Your task to perform on an android device: open app "YouTube Kids" (install if not already installed) and enter user name: "atmospheric@gmail.com" and password: "raze" Image 0: 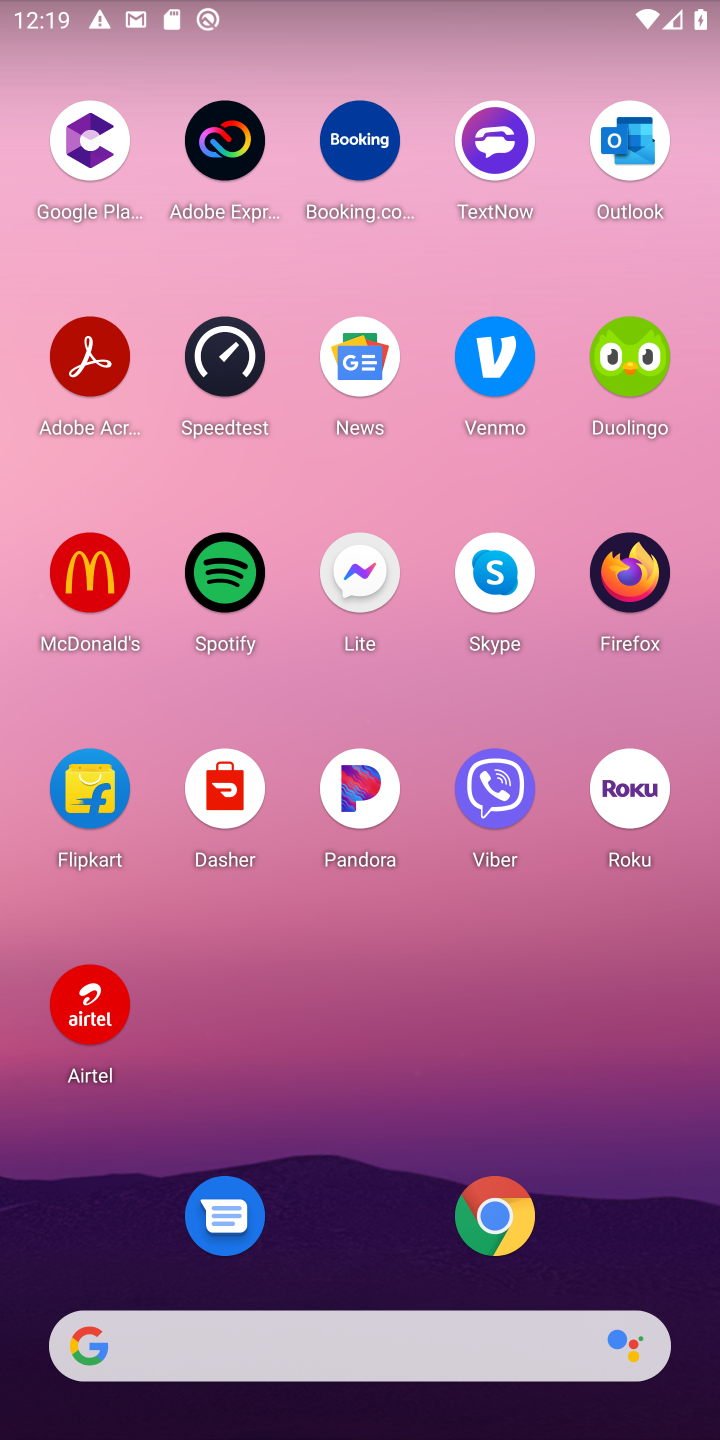
Step 0: press home button
Your task to perform on an android device: open app "YouTube Kids" (install if not already installed) and enter user name: "atmospheric@gmail.com" and password: "raze" Image 1: 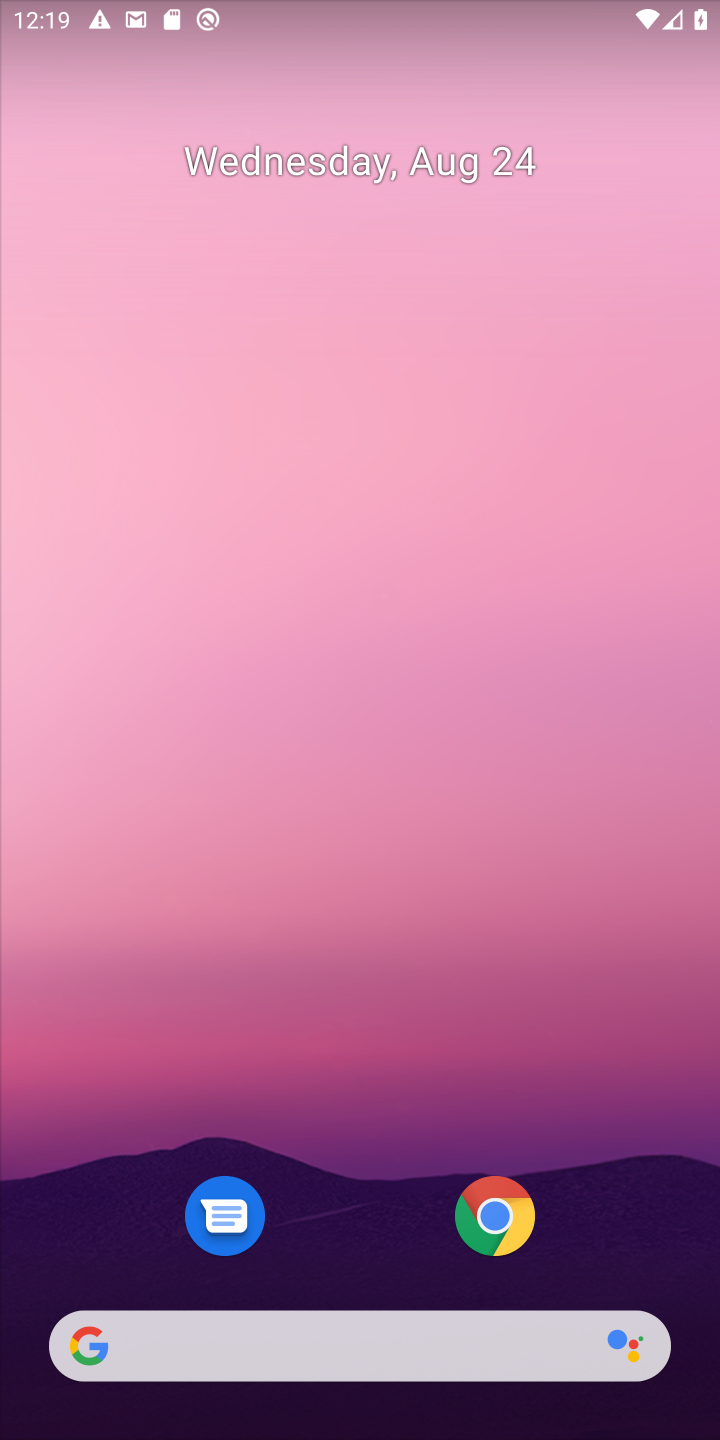
Step 1: drag from (290, 1158) to (317, 8)
Your task to perform on an android device: open app "YouTube Kids" (install if not already installed) and enter user name: "atmospheric@gmail.com" and password: "raze" Image 2: 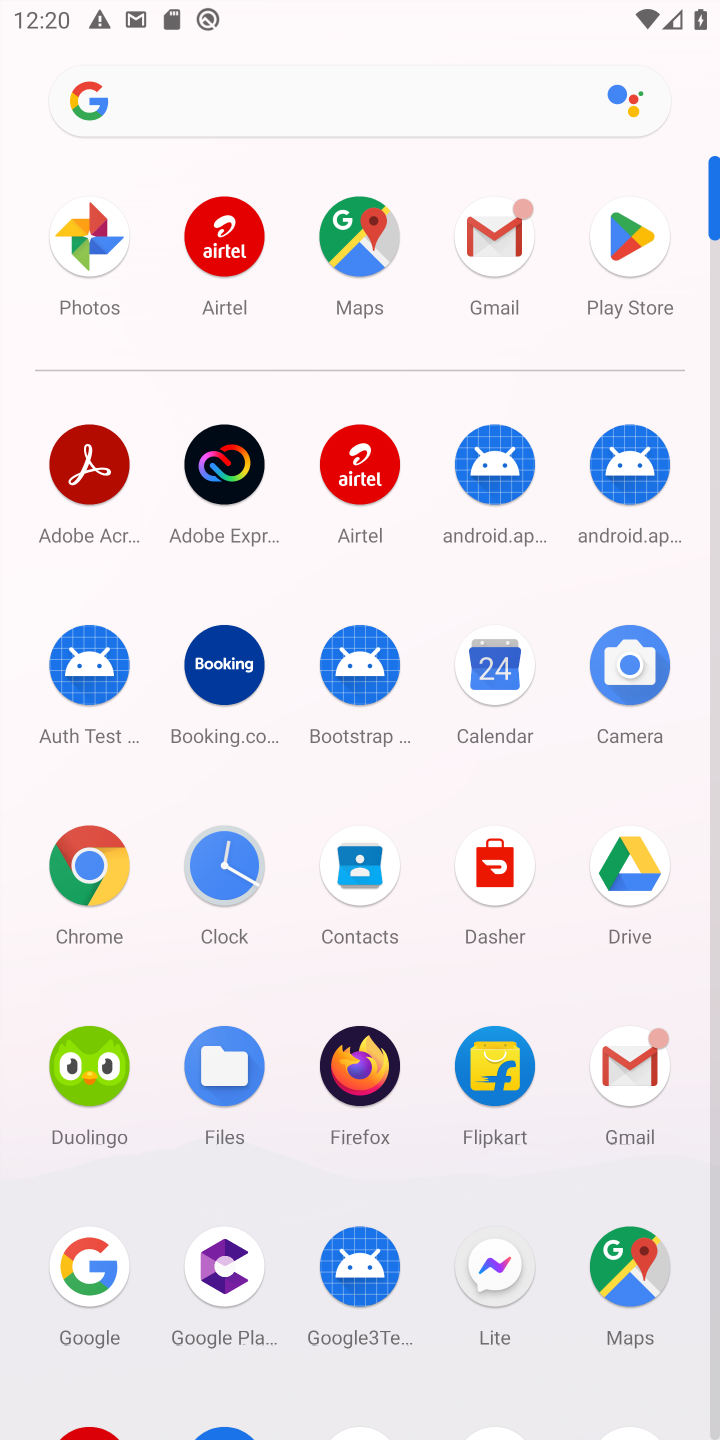
Step 2: click (629, 235)
Your task to perform on an android device: open app "YouTube Kids" (install if not already installed) and enter user name: "atmospheric@gmail.com" and password: "raze" Image 3: 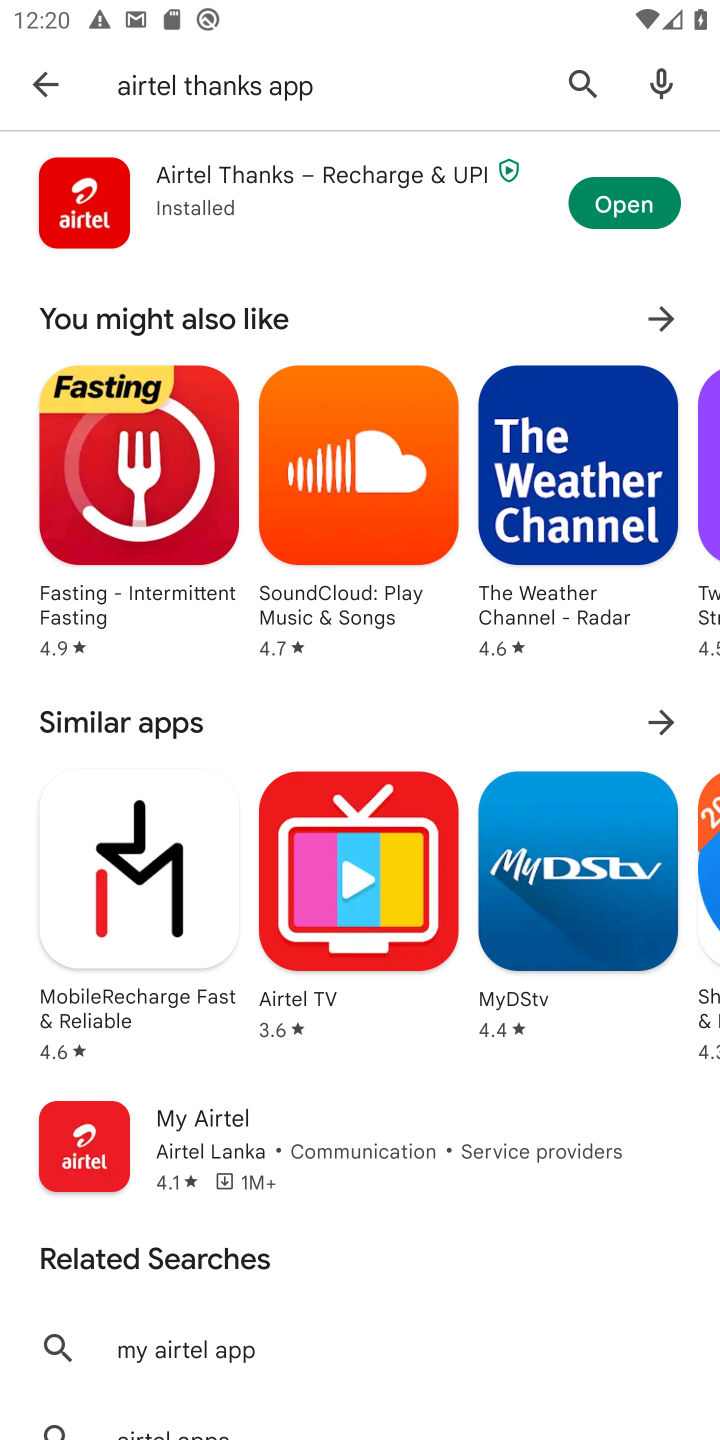
Step 3: press back button
Your task to perform on an android device: open app "YouTube Kids" (install if not already installed) and enter user name: "atmospheric@gmail.com" and password: "raze" Image 4: 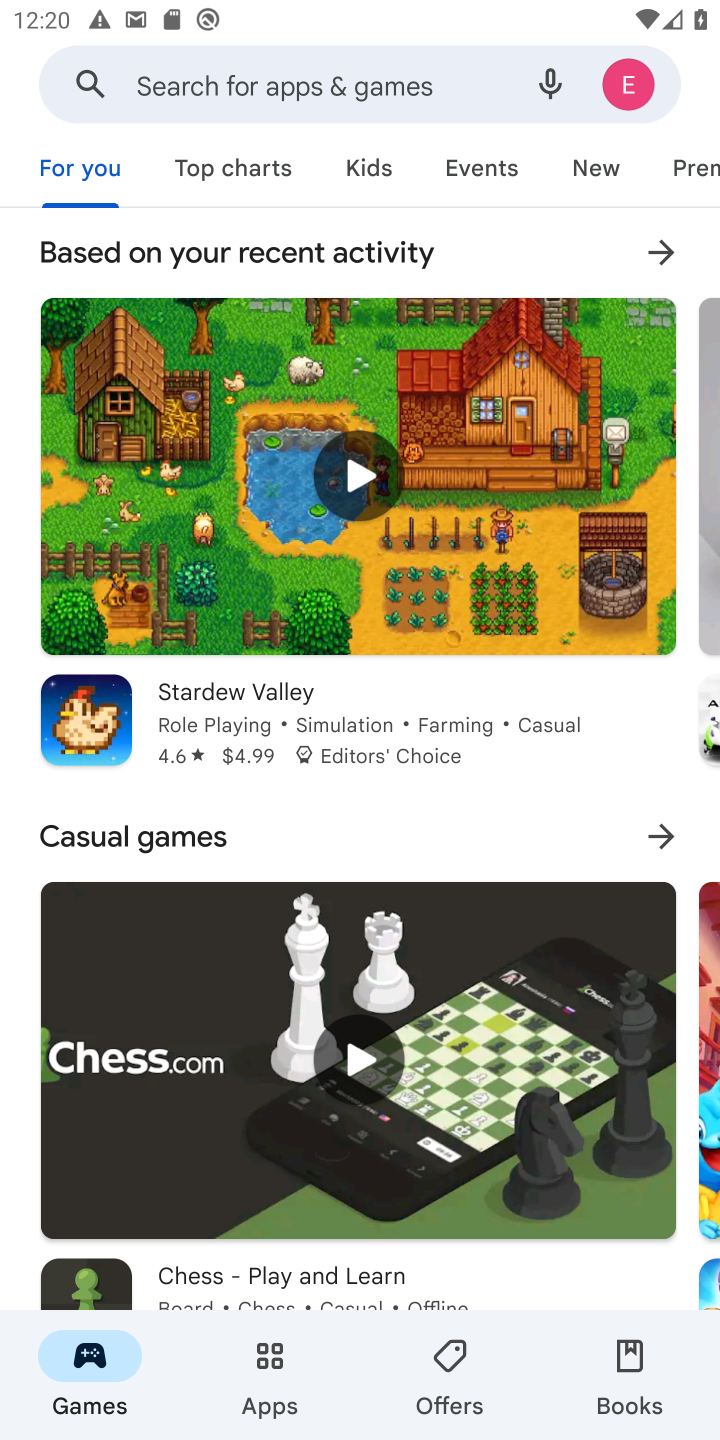
Step 4: click (352, 92)
Your task to perform on an android device: open app "YouTube Kids" (install if not already installed) and enter user name: "atmospheric@gmail.com" and password: "raze" Image 5: 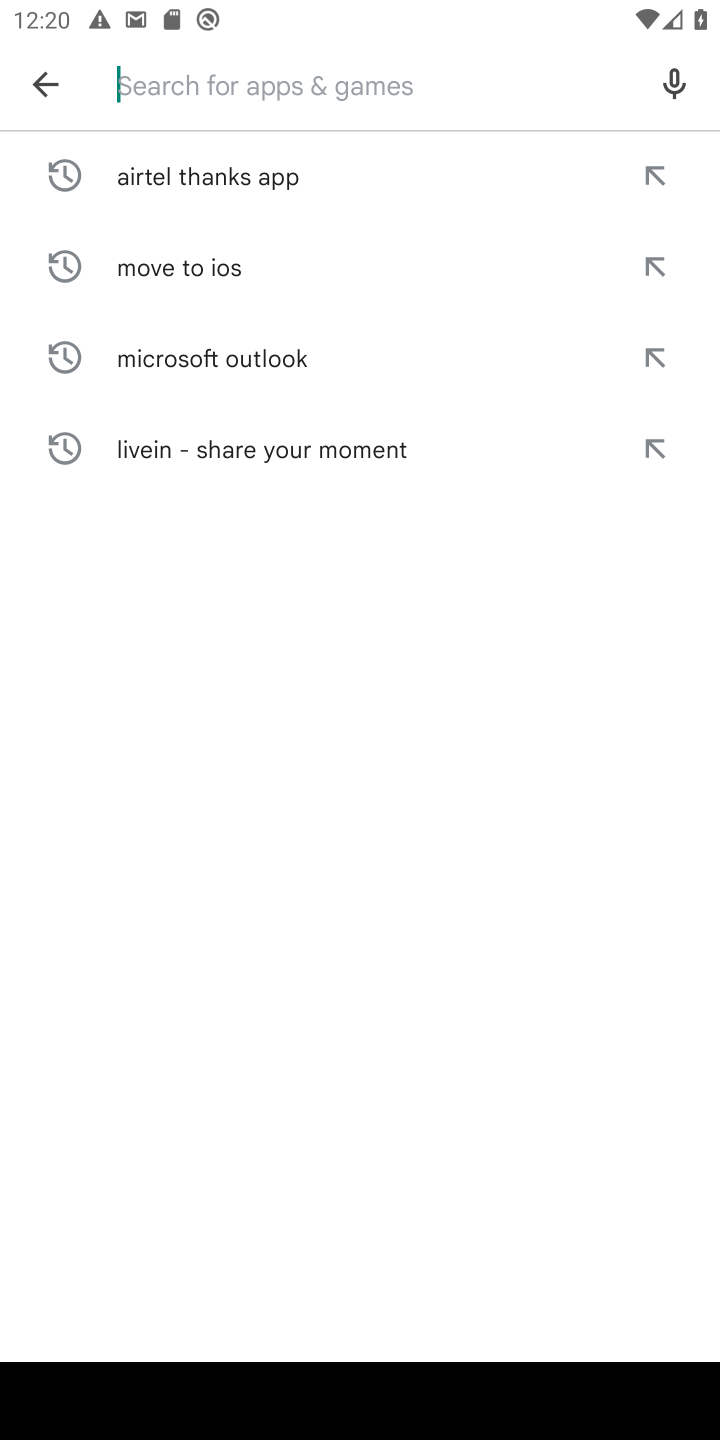
Step 5: type "YouTube Kids"
Your task to perform on an android device: open app "YouTube Kids" (install if not already installed) and enter user name: "atmospheric@gmail.com" and password: "raze" Image 6: 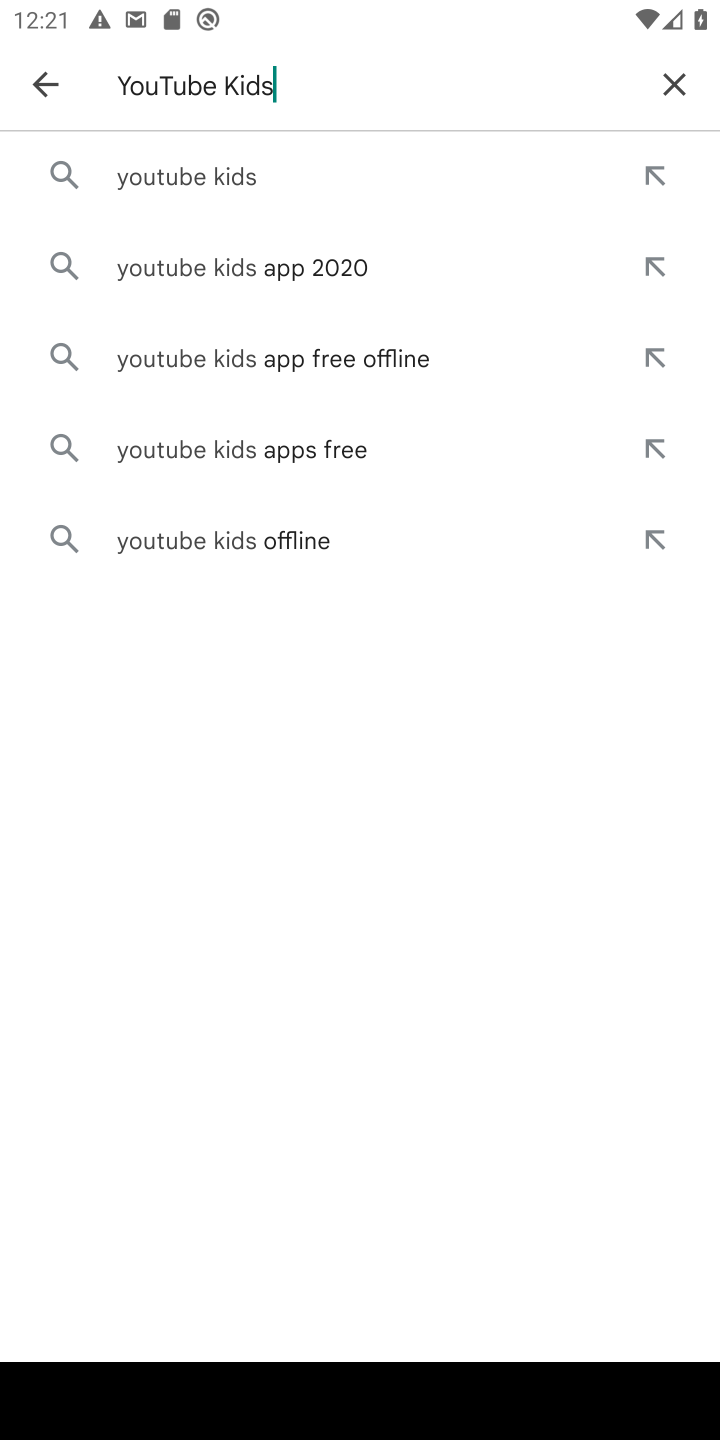
Step 6: click (203, 180)
Your task to perform on an android device: open app "YouTube Kids" (install if not already installed) and enter user name: "atmospheric@gmail.com" and password: "raze" Image 7: 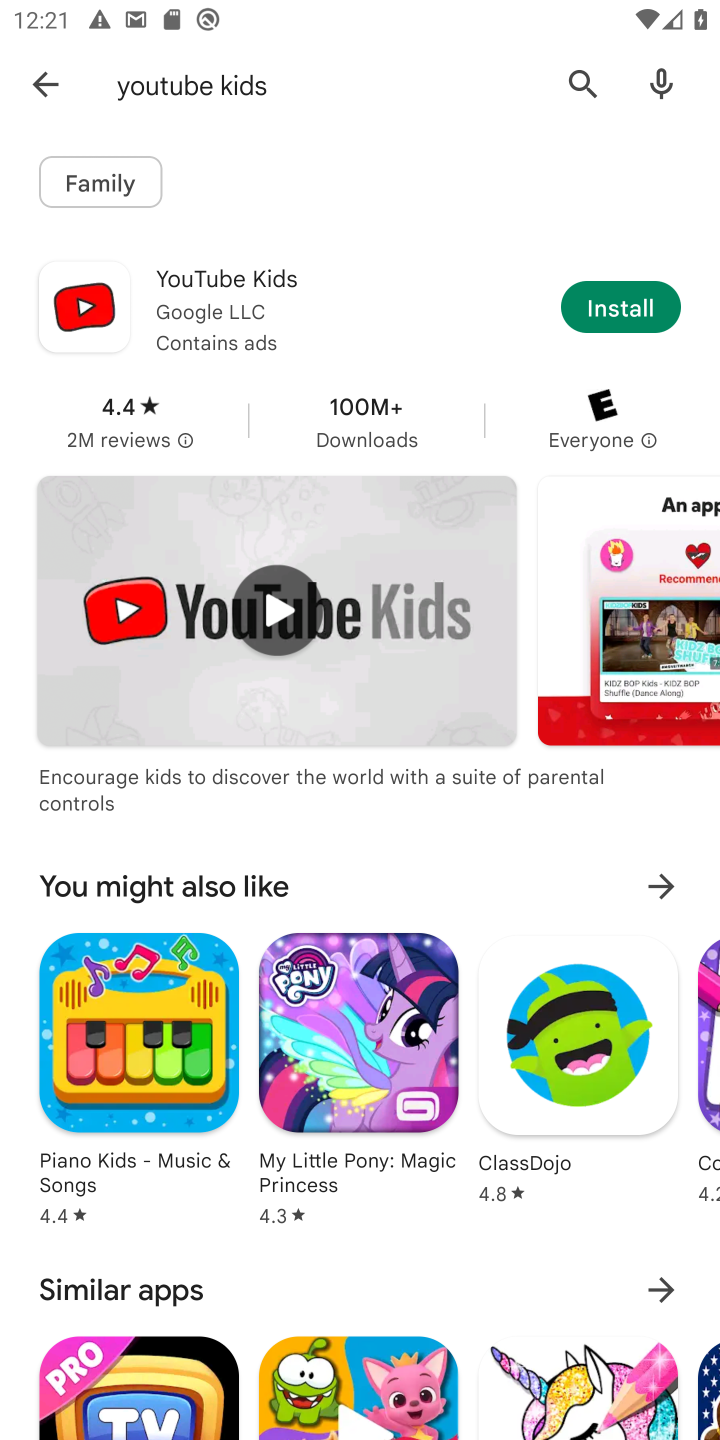
Step 7: click (612, 313)
Your task to perform on an android device: open app "YouTube Kids" (install if not already installed) and enter user name: "atmospheric@gmail.com" and password: "raze" Image 8: 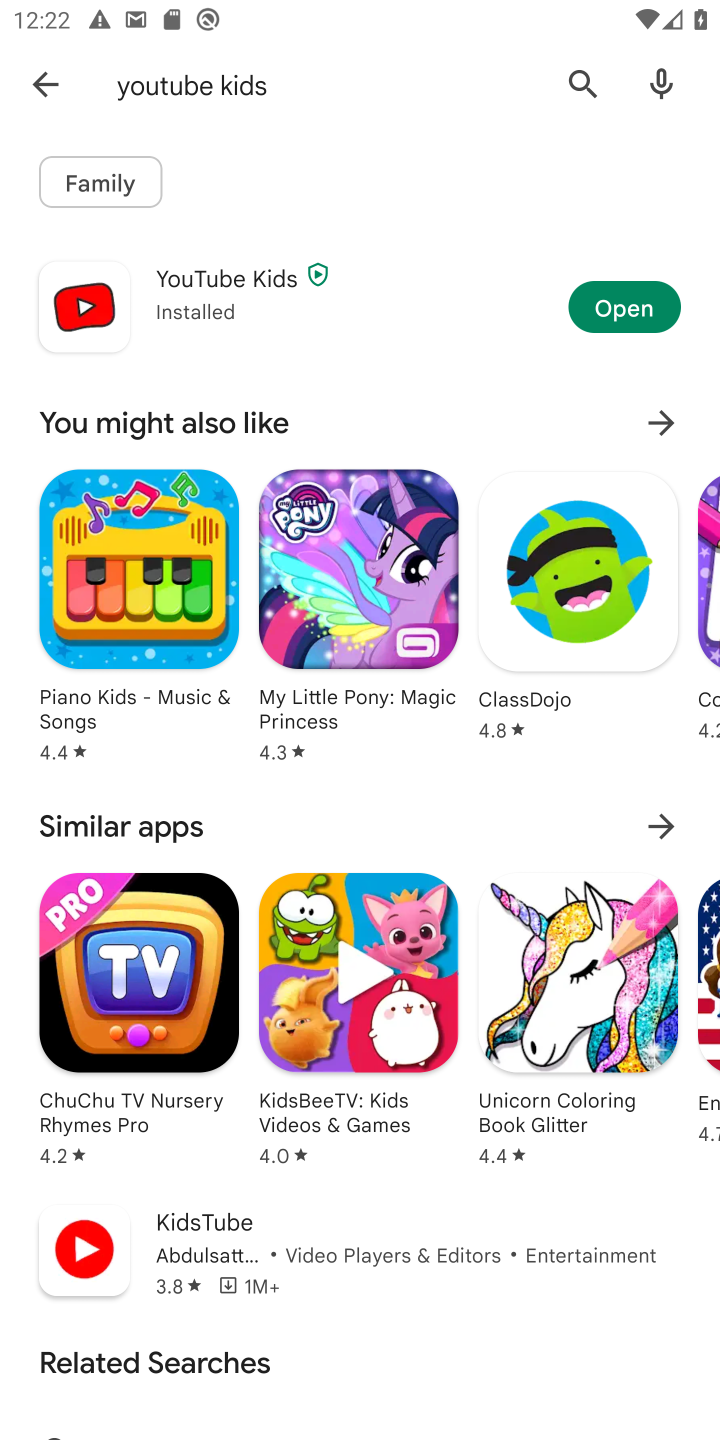
Step 8: click (629, 307)
Your task to perform on an android device: open app "YouTube Kids" (install if not already installed) and enter user name: "atmospheric@gmail.com" and password: "raze" Image 9: 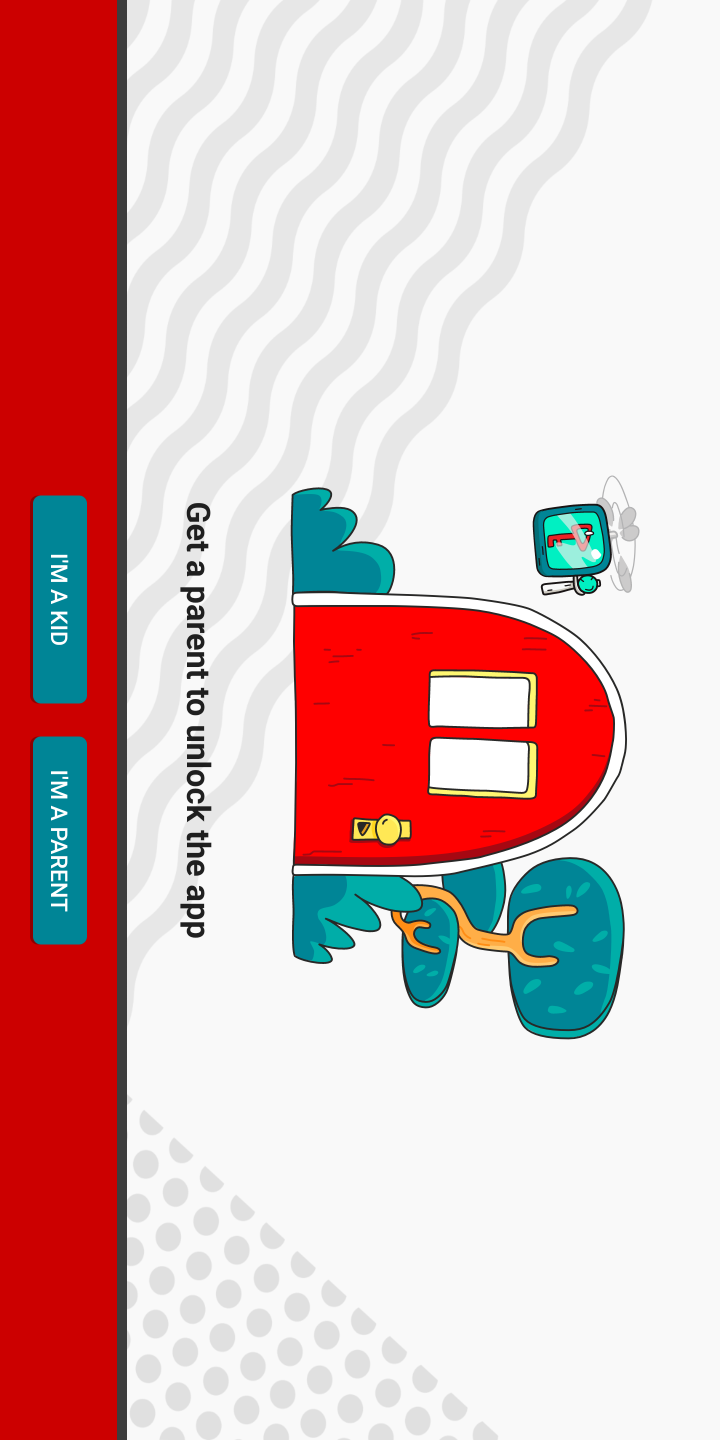
Step 9: click (57, 840)
Your task to perform on an android device: open app "YouTube Kids" (install if not already installed) and enter user name: "atmospheric@gmail.com" and password: "raze" Image 10: 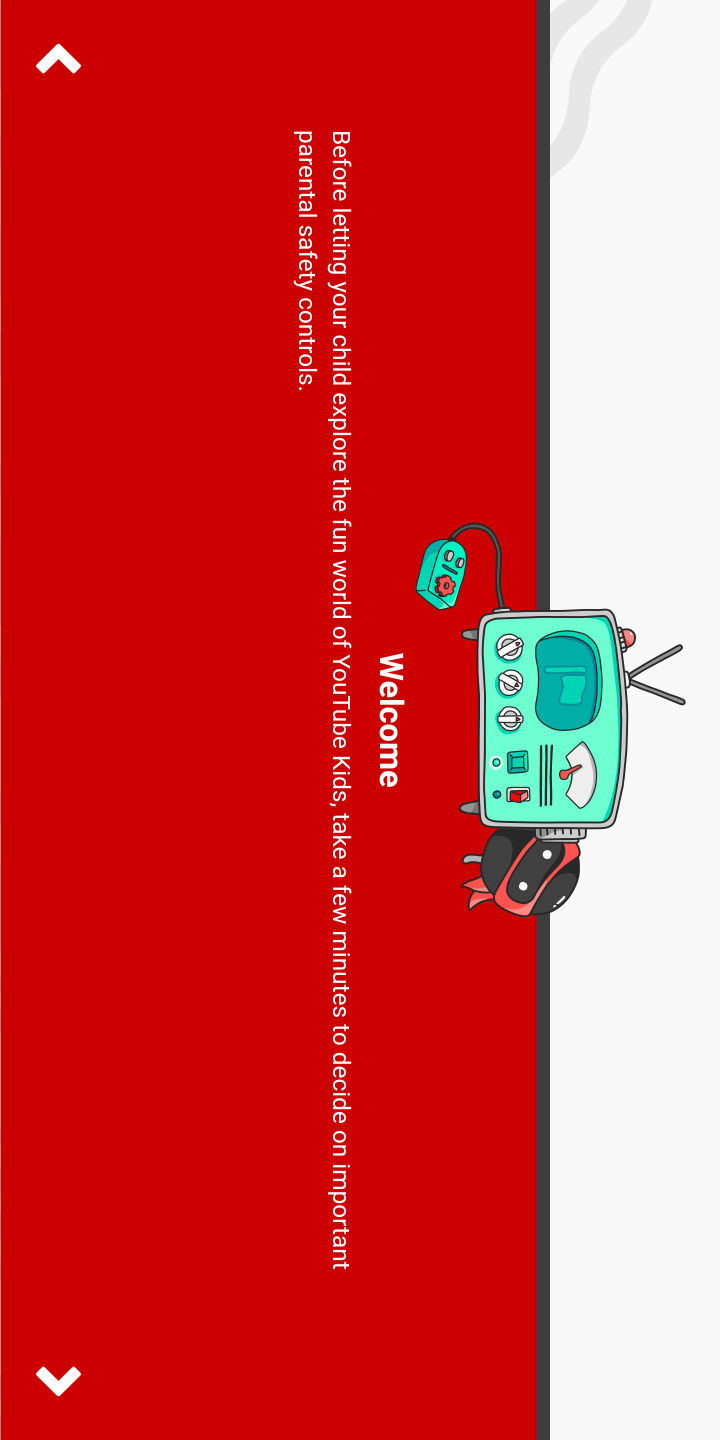
Step 10: click (65, 1376)
Your task to perform on an android device: open app "YouTube Kids" (install if not already installed) and enter user name: "atmospheric@gmail.com" and password: "raze" Image 11: 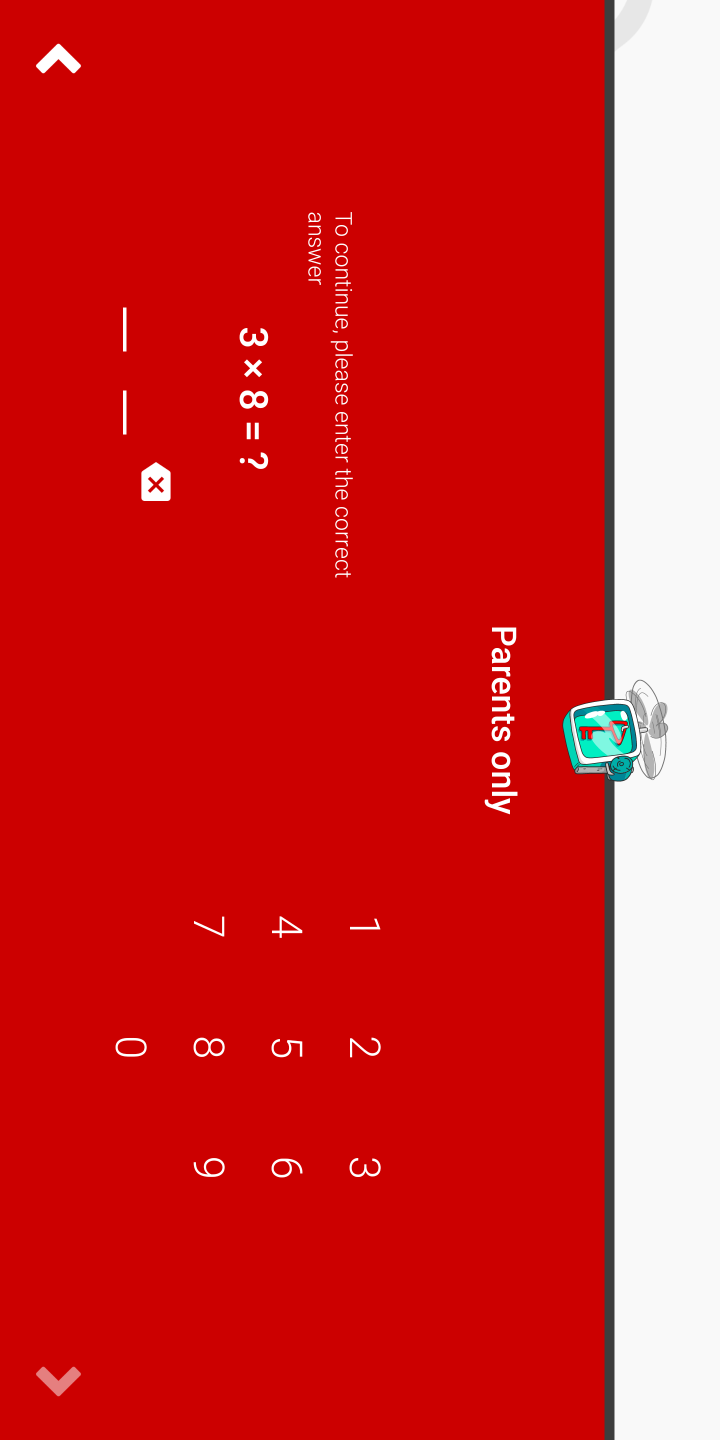
Step 11: click (371, 1061)
Your task to perform on an android device: open app "YouTube Kids" (install if not already installed) and enter user name: "atmospheric@gmail.com" and password: "raze" Image 12: 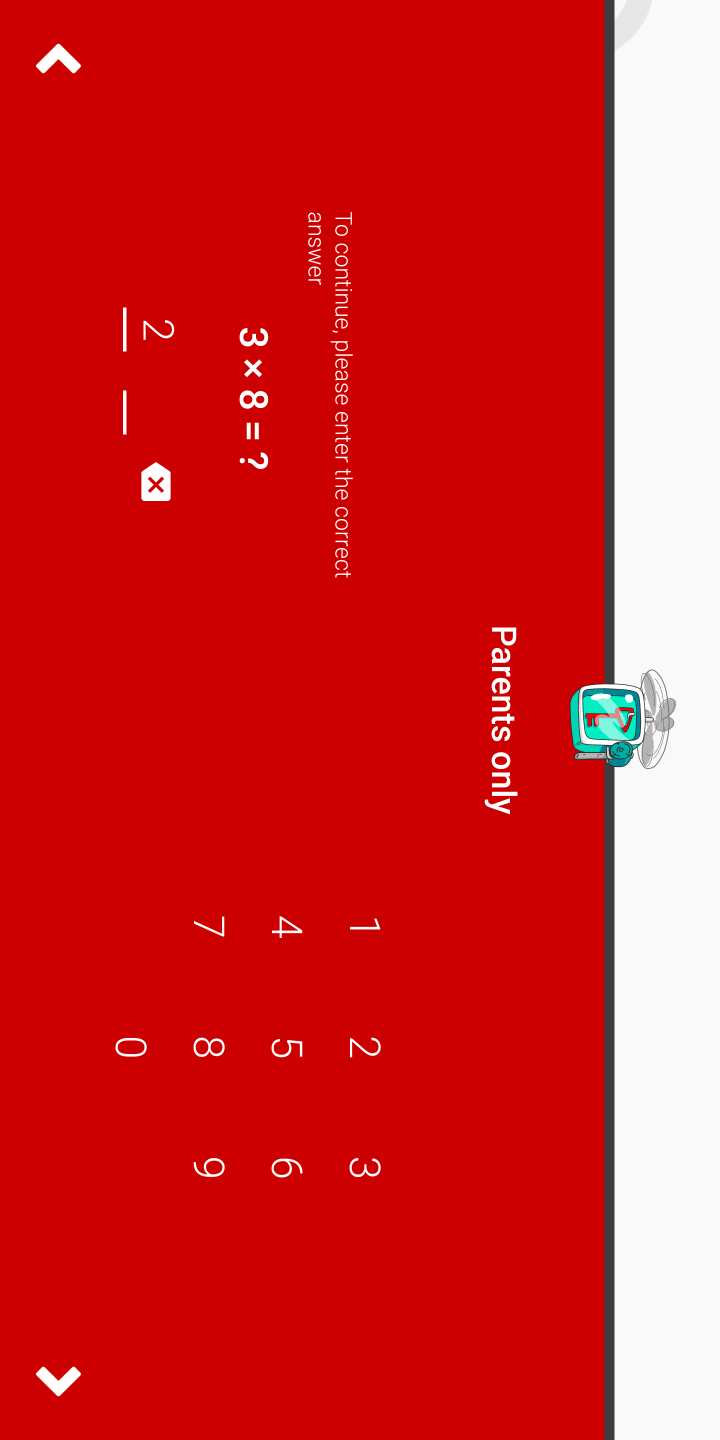
Step 12: click (285, 933)
Your task to perform on an android device: open app "YouTube Kids" (install if not already installed) and enter user name: "atmospheric@gmail.com" and password: "raze" Image 13: 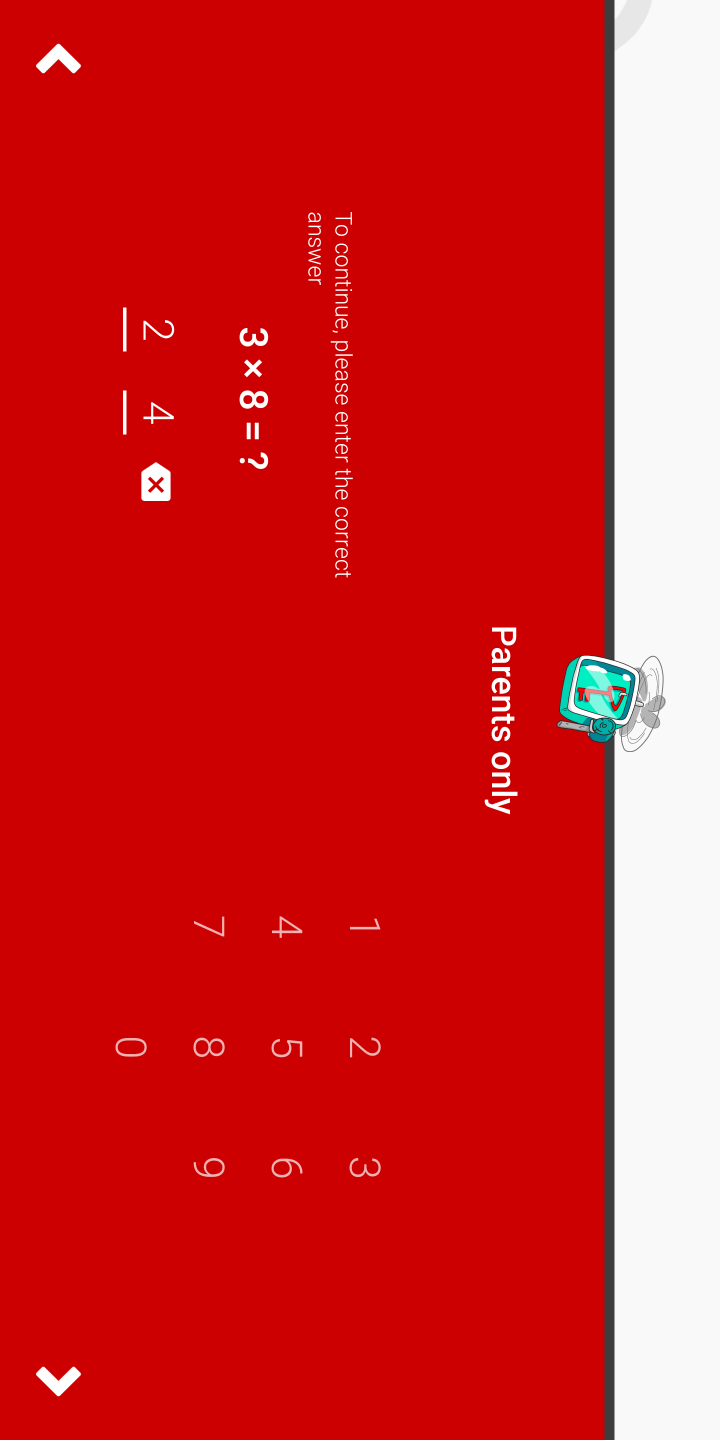
Step 13: click (46, 1390)
Your task to perform on an android device: open app "YouTube Kids" (install if not already installed) and enter user name: "atmospheric@gmail.com" and password: "raze" Image 14: 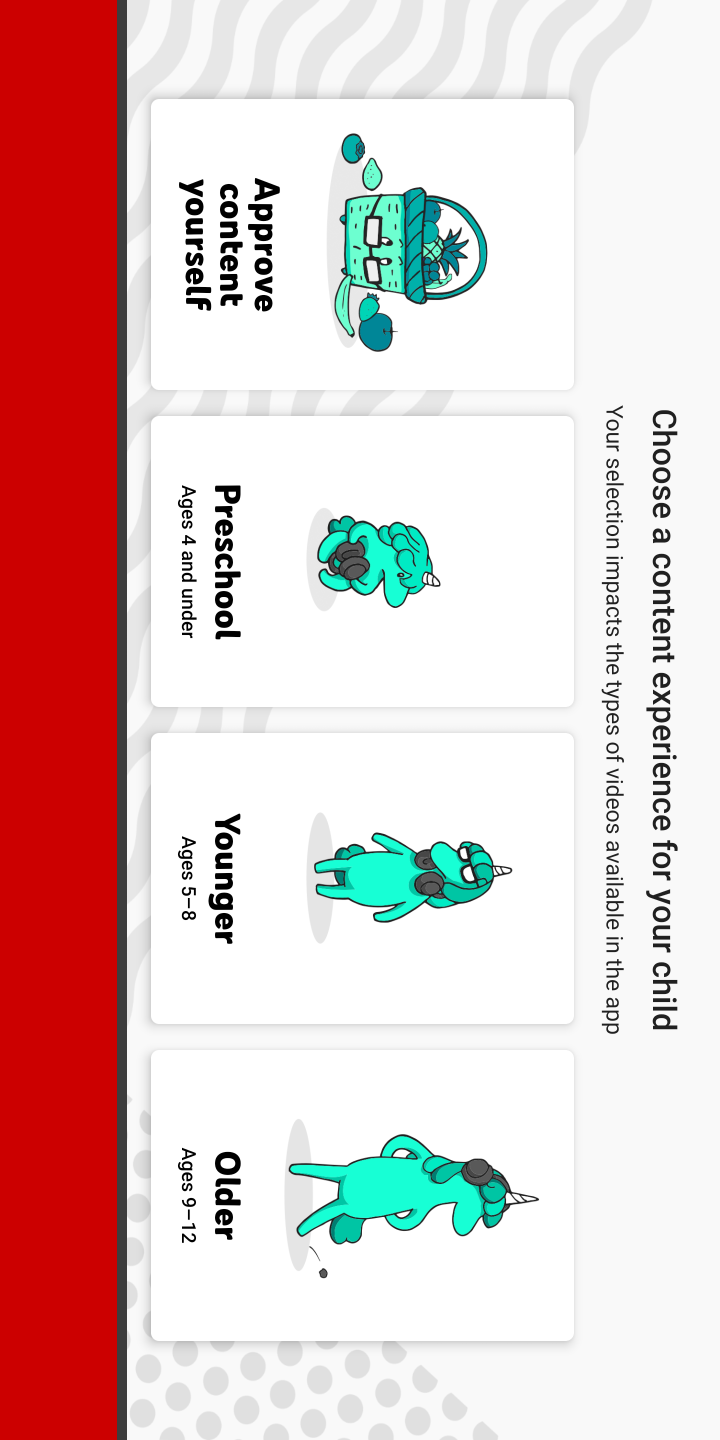
Step 14: click (410, 368)
Your task to perform on an android device: open app "YouTube Kids" (install if not already installed) and enter user name: "atmospheric@gmail.com" and password: "raze" Image 15: 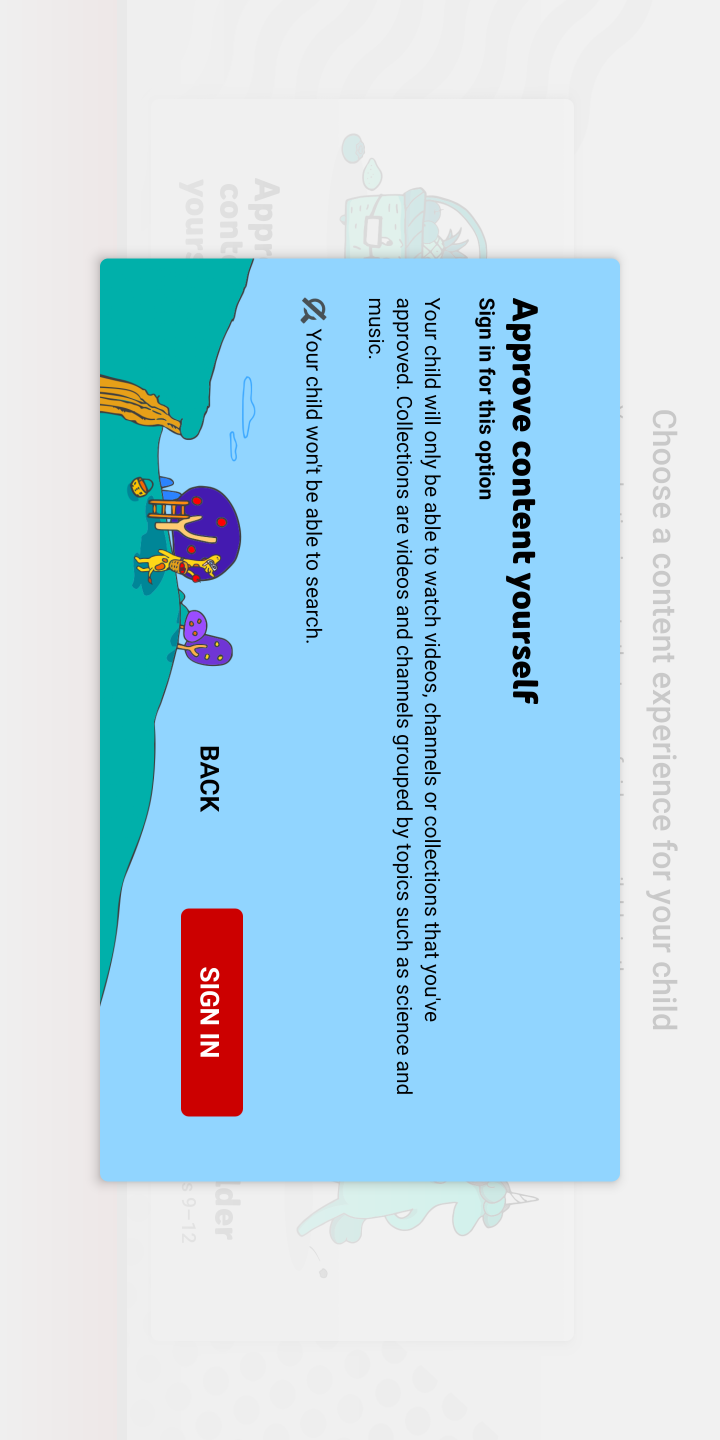
Step 15: click (217, 979)
Your task to perform on an android device: open app "YouTube Kids" (install if not already installed) and enter user name: "atmospheric@gmail.com" and password: "raze" Image 16: 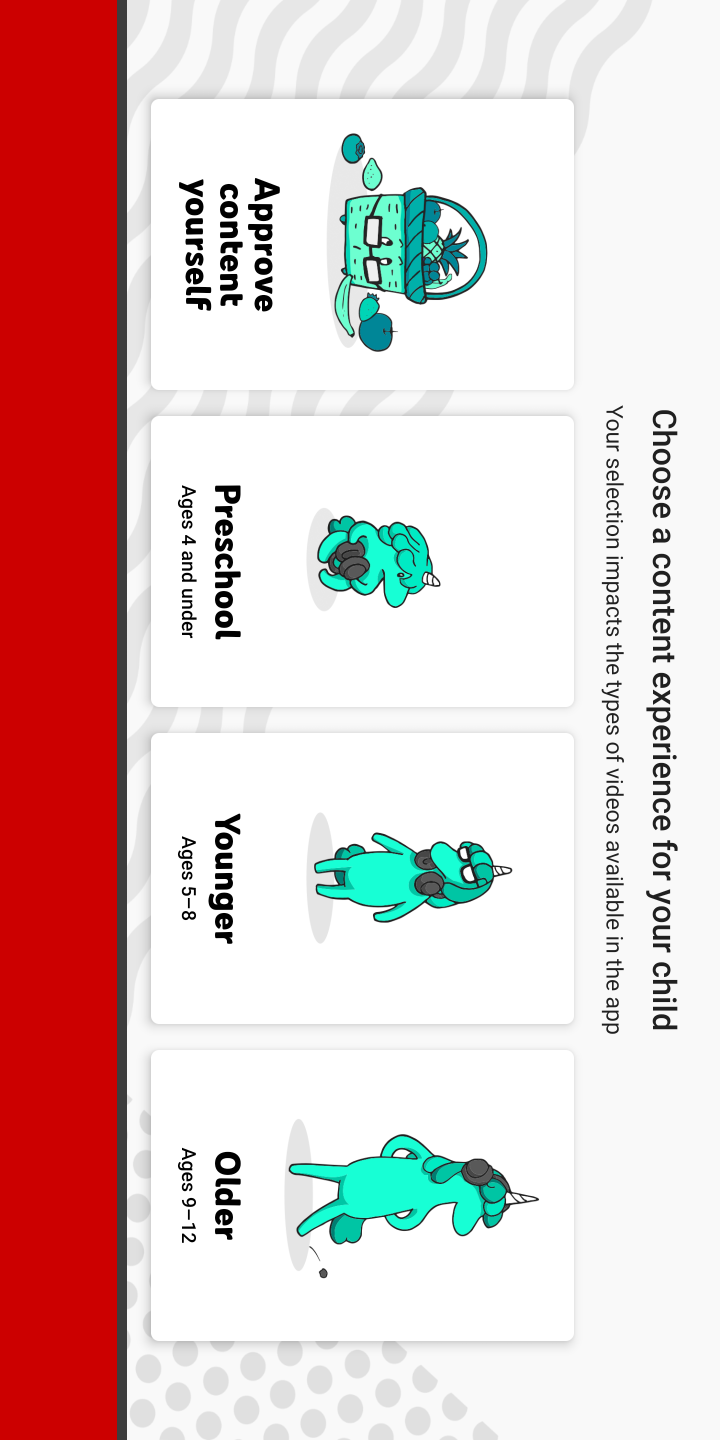
Step 16: click (274, 208)
Your task to perform on an android device: open app "YouTube Kids" (install if not already installed) and enter user name: "atmospheric@gmail.com" and password: "raze" Image 17: 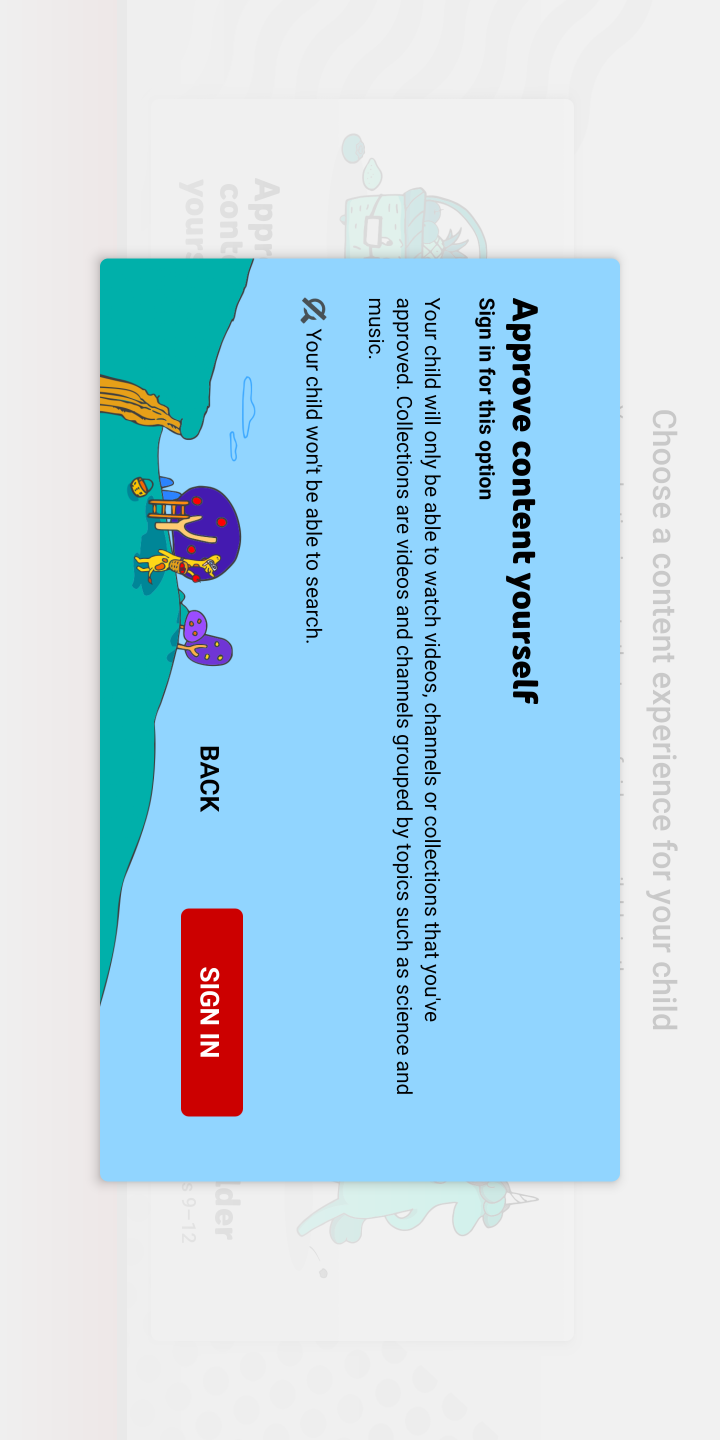
Step 17: click (202, 1002)
Your task to perform on an android device: open app "YouTube Kids" (install if not already installed) and enter user name: "atmospheric@gmail.com" and password: "raze" Image 18: 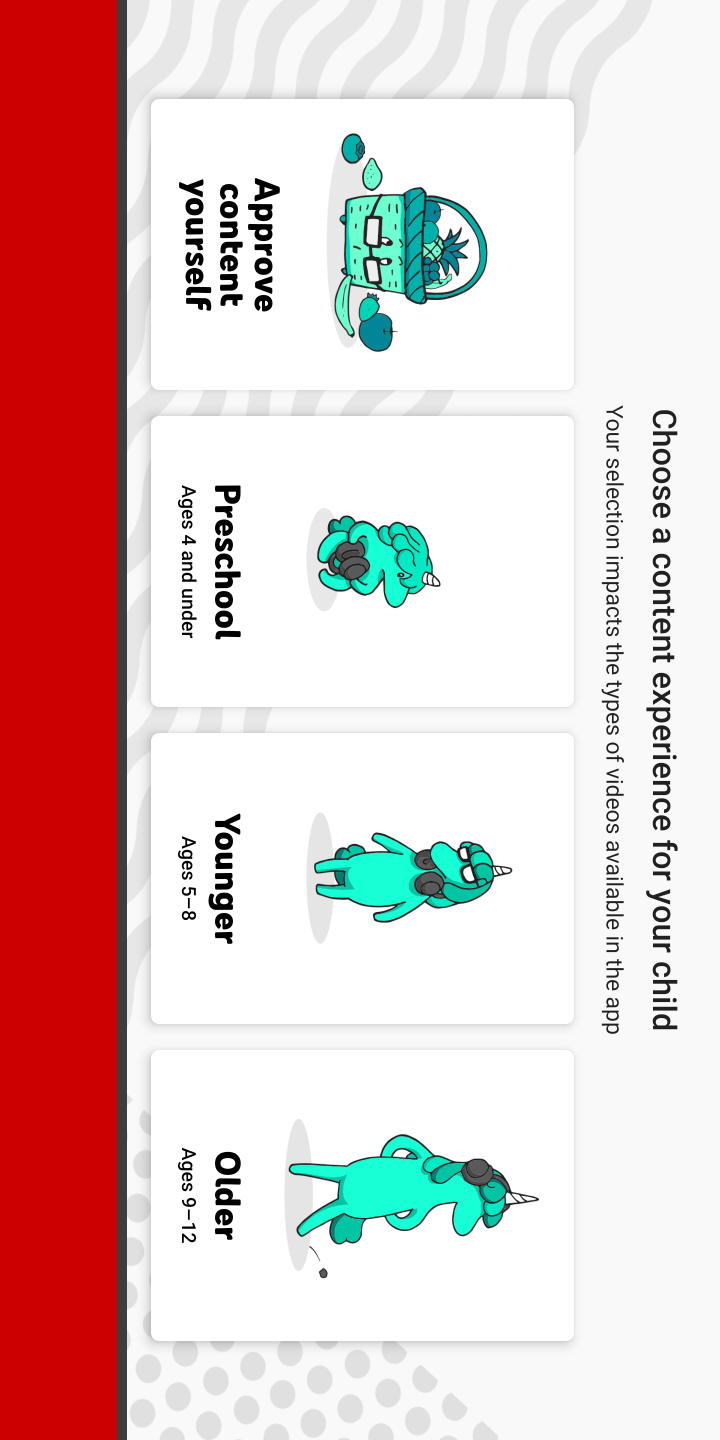
Step 18: click (309, 629)
Your task to perform on an android device: open app "YouTube Kids" (install if not already installed) and enter user name: "atmospheric@gmail.com" and password: "raze" Image 19: 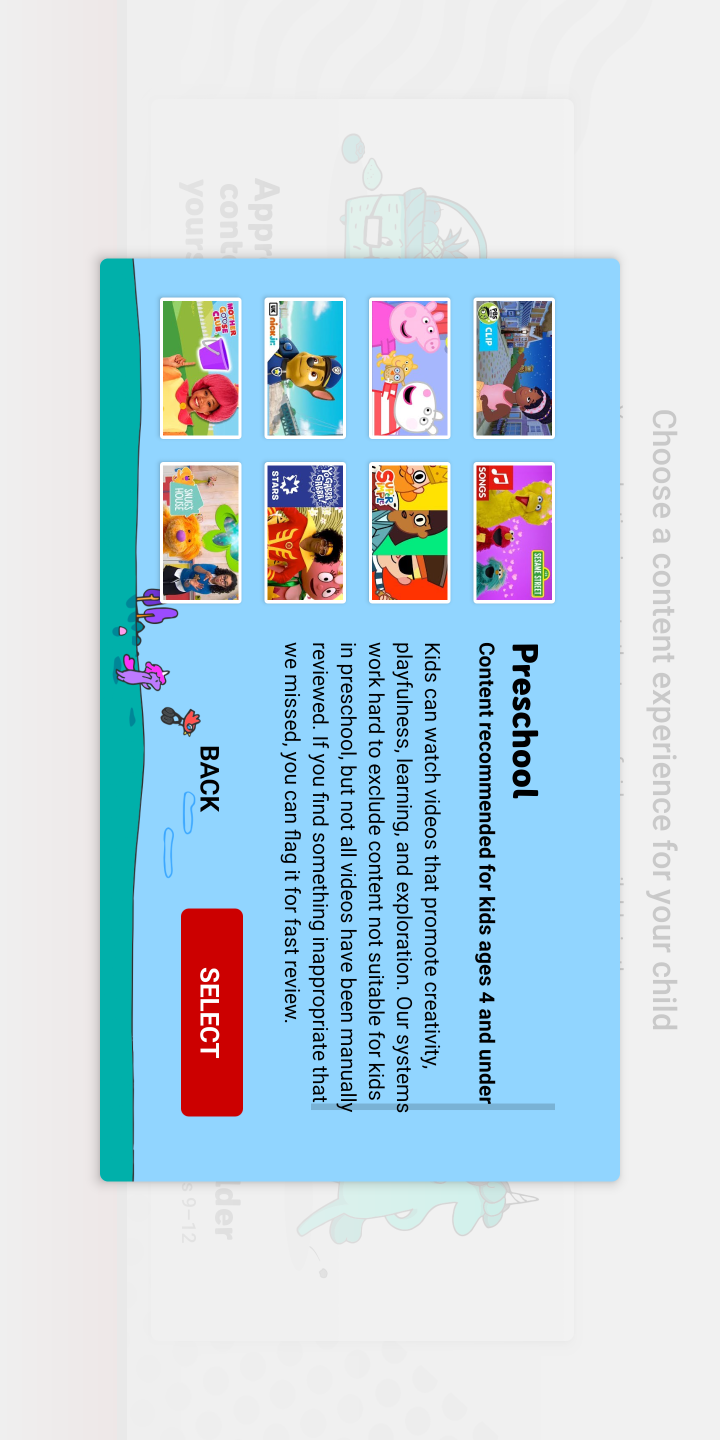
Step 19: click (213, 992)
Your task to perform on an android device: open app "YouTube Kids" (install if not already installed) and enter user name: "atmospheric@gmail.com" and password: "raze" Image 20: 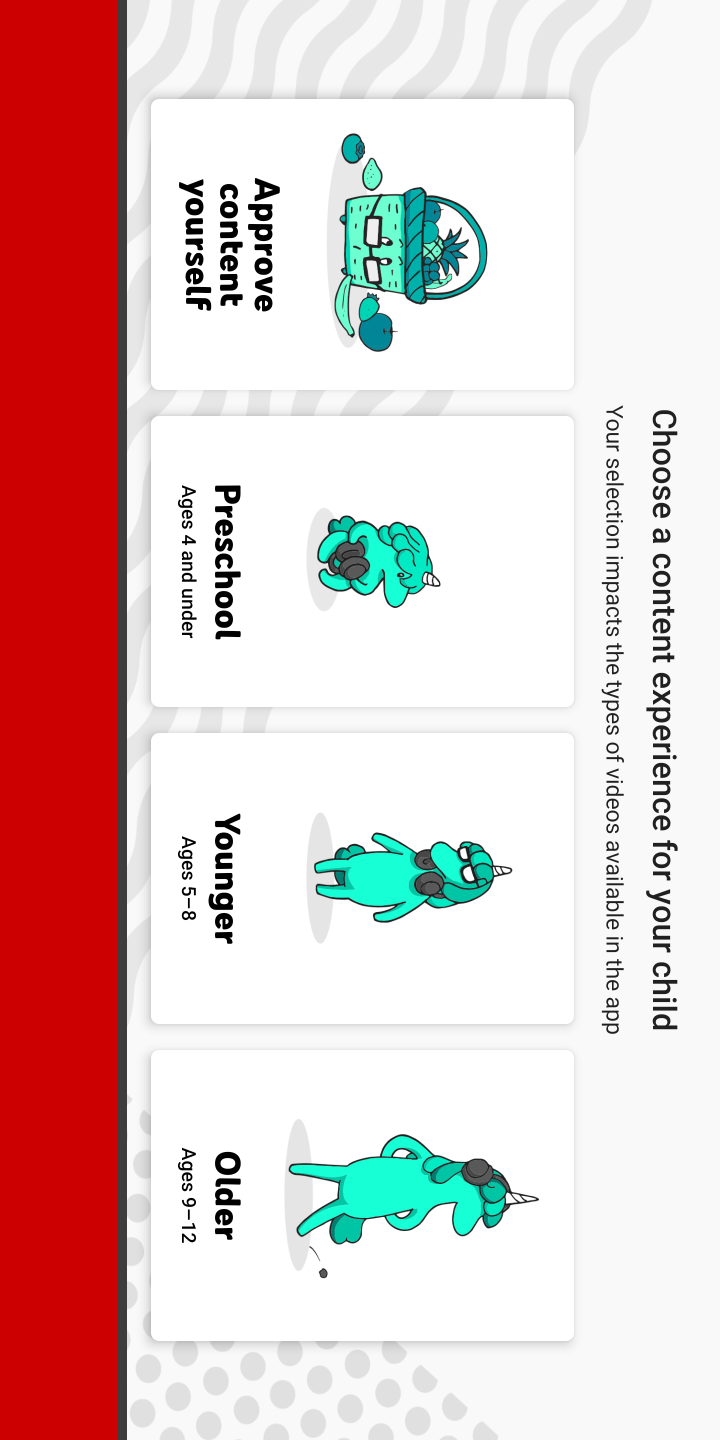
Step 20: task complete